Your task to perform on an android device: open app "Adobe Acrobat Reader" Image 0: 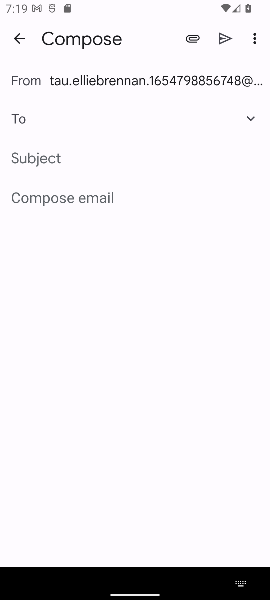
Step 0: press home button
Your task to perform on an android device: open app "Adobe Acrobat Reader" Image 1: 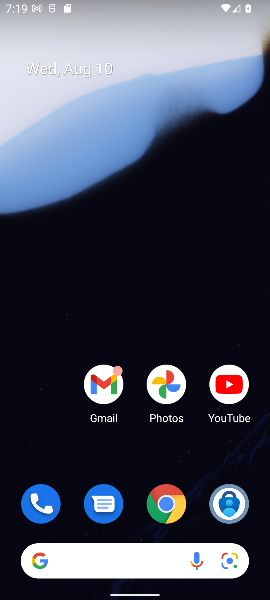
Step 1: drag from (147, 552) to (178, 3)
Your task to perform on an android device: open app "Adobe Acrobat Reader" Image 2: 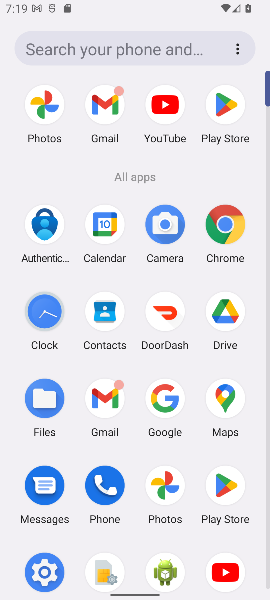
Step 2: click (234, 116)
Your task to perform on an android device: open app "Adobe Acrobat Reader" Image 3: 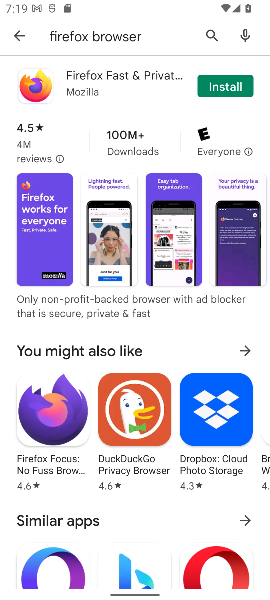
Step 3: click (211, 40)
Your task to perform on an android device: open app "Adobe Acrobat Reader" Image 4: 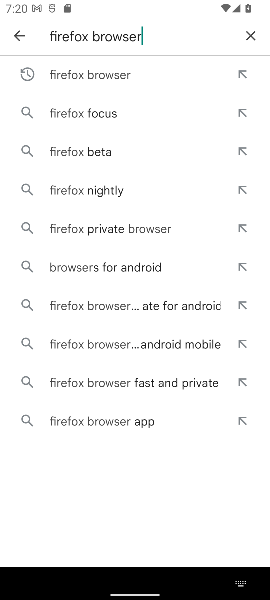
Step 4: click (248, 35)
Your task to perform on an android device: open app "Adobe Acrobat Reader" Image 5: 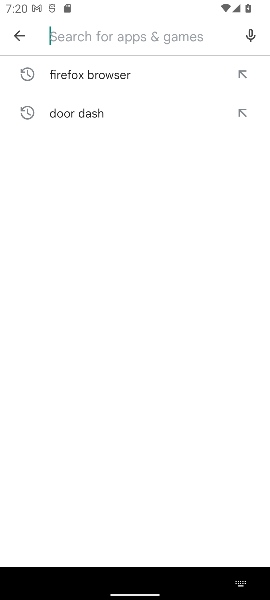
Step 5: type "Adobe Acrobat Reader"
Your task to perform on an android device: open app "Adobe Acrobat Reader" Image 6: 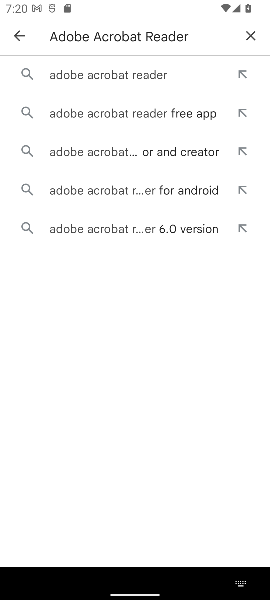
Step 6: click (128, 78)
Your task to perform on an android device: open app "Adobe Acrobat Reader" Image 7: 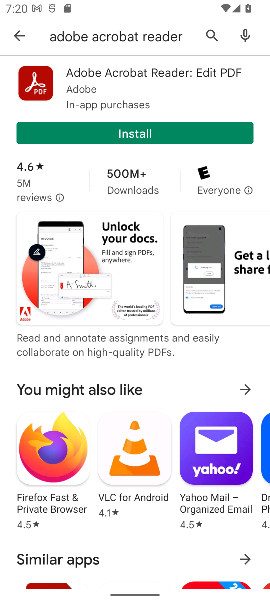
Step 7: task complete